Your task to perform on an android device: Open my contact list Image 0: 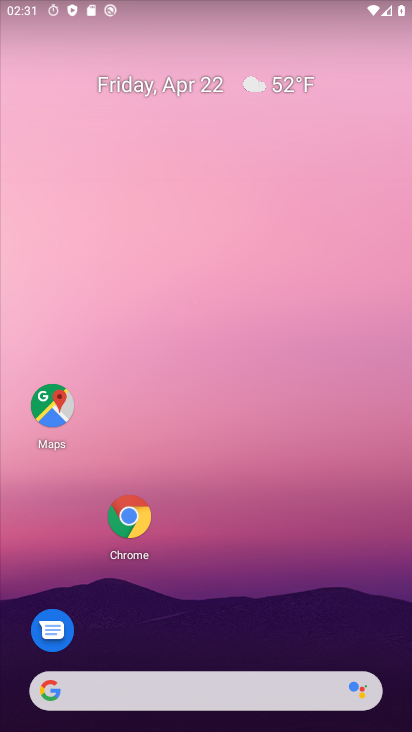
Step 0: click (375, 155)
Your task to perform on an android device: Open my contact list Image 1: 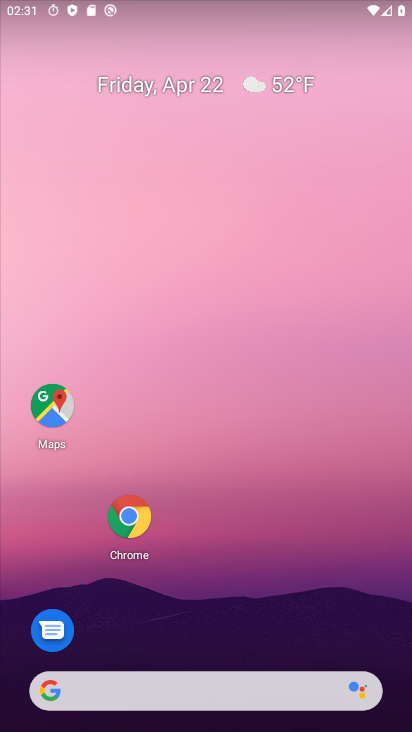
Step 1: drag from (387, 283) to (409, 155)
Your task to perform on an android device: Open my contact list Image 2: 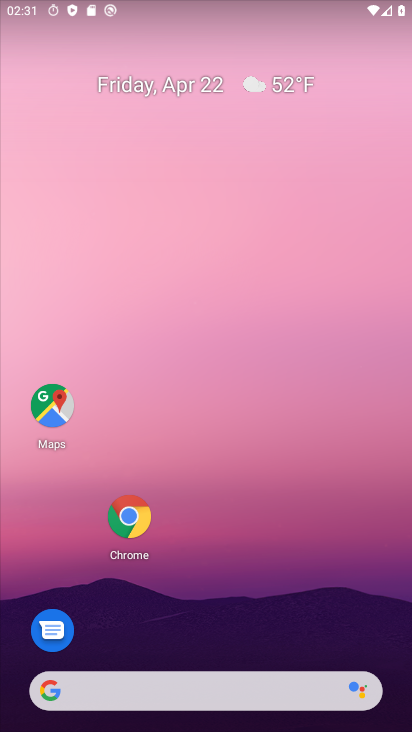
Step 2: drag from (390, 471) to (357, 95)
Your task to perform on an android device: Open my contact list Image 3: 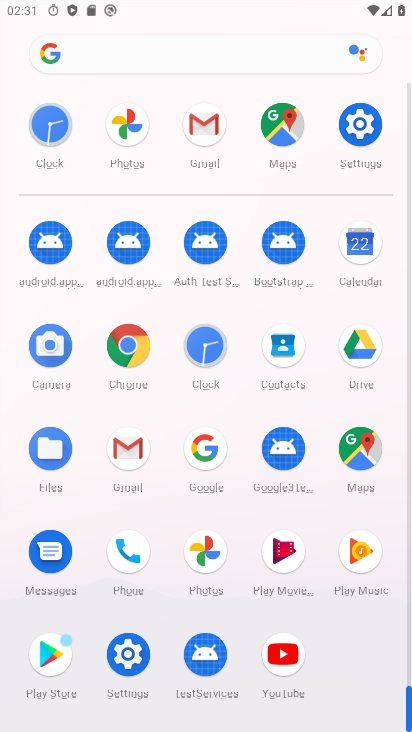
Step 3: click (274, 352)
Your task to perform on an android device: Open my contact list Image 4: 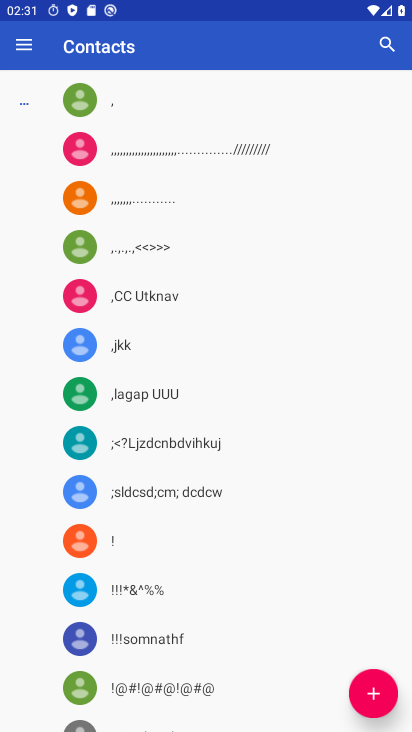
Step 4: task complete